Your task to perform on an android device: read, delete, or share a saved page in the chrome app Image 0: 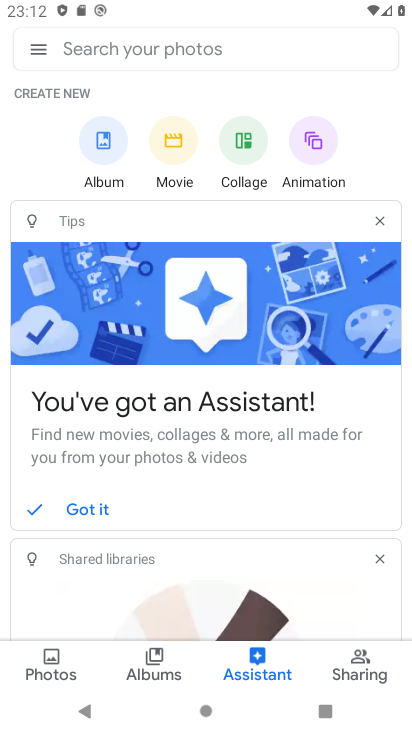
Step 0: press home button
Your task to perform on an android device: read, delete, or share a saved page in the chrome app Image 1: 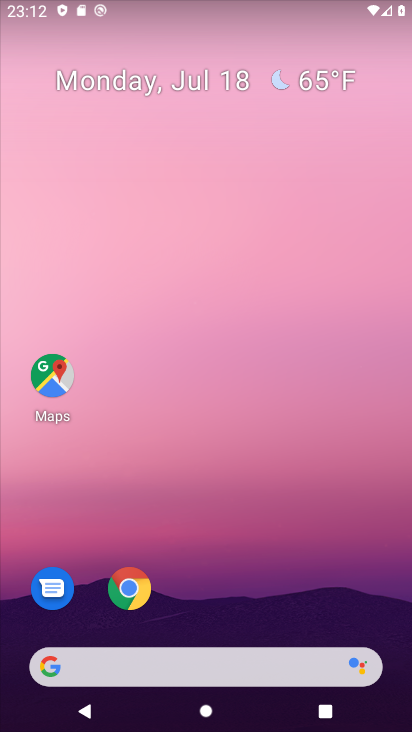
Step 1: click (136, 593)
Your task to perform on an android device: read, delete, or share a saved page in the chrome app Image 2: 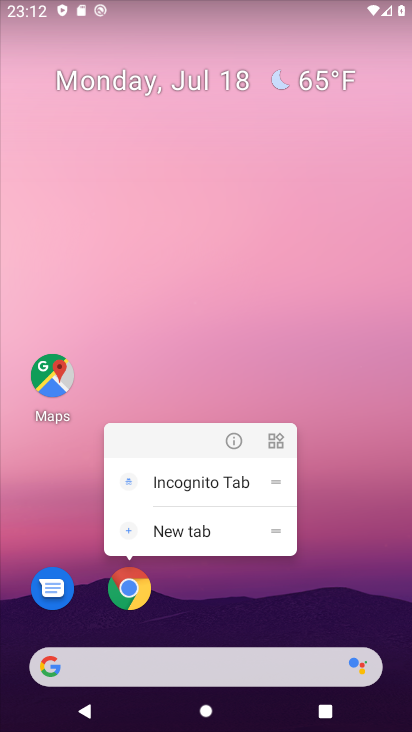
Step 2: click (132, 590)
Your task to perform on an android device: read, delete, or share a saved page in the chrome app Image 3: 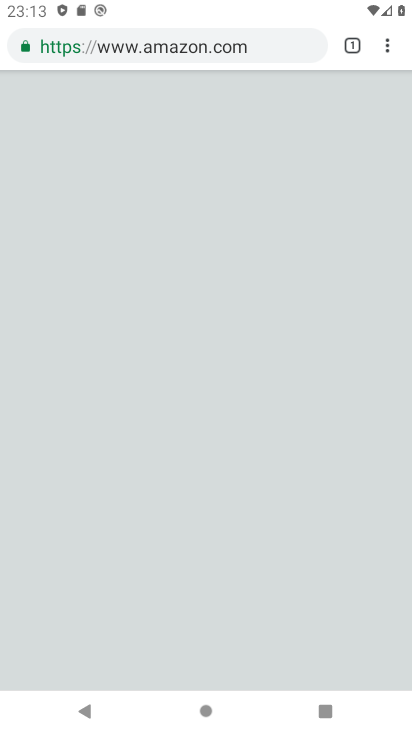
Step 3: drag from (384, 44) to (220, 297)
Your task to perform on an android device: read, delete, or share a saved page in the chrome app Image 4: 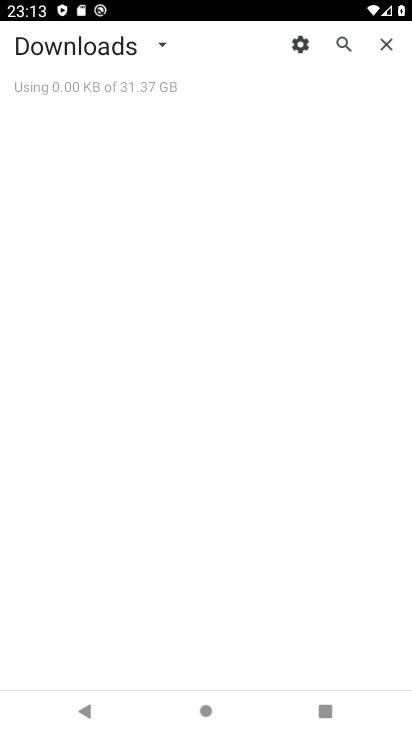
Step 4: click (164, 43)
Your task to perform on an android device: read, delete, or share a saved page in the chrome app Image 5: 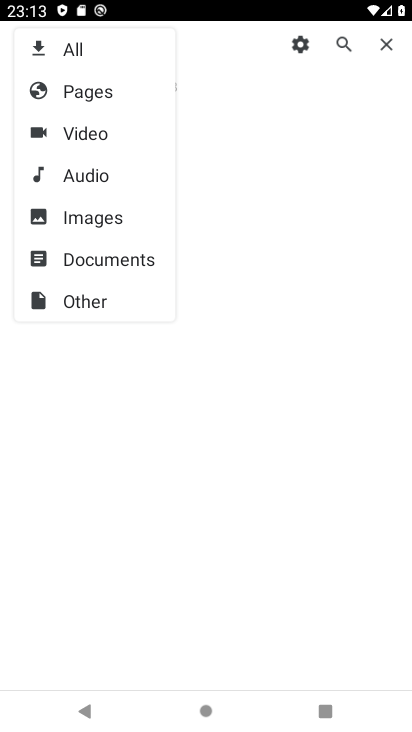
Step 5: click (92, 84)
Your task to perform on an android device: read, delete, or share a saved page in the chrome app Image 6: 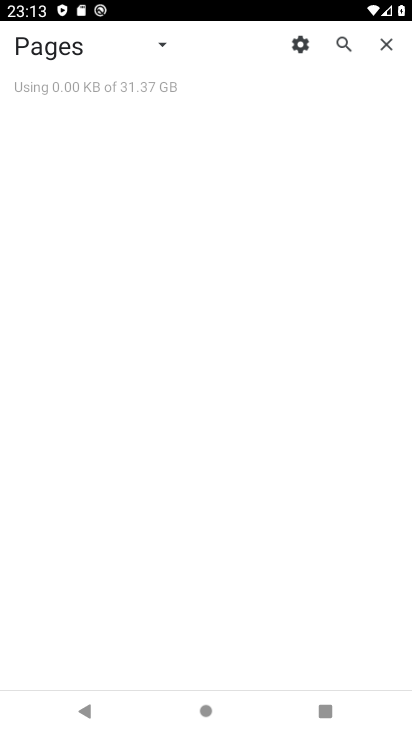
Step 6: task complete